Your task to perform on an android device: Search for vegetarian restaurants on Maps Image 0: 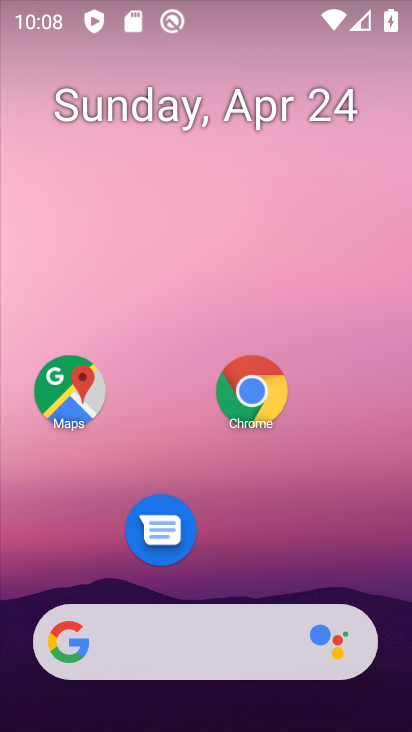
Step 0: click (78, 372)
Your task to perform on an android device: Search for vegetarian restaurants on Maps Image 1: 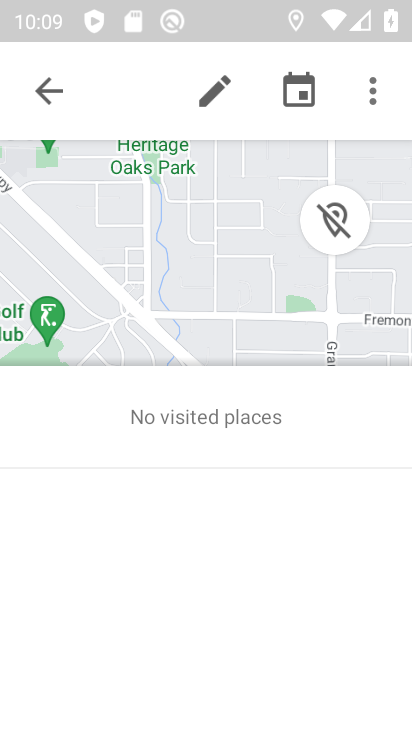
Step 1: click (50, 75)
Your task to perform on an android device: Search for vegetarian restaurants on Maps Image 2: 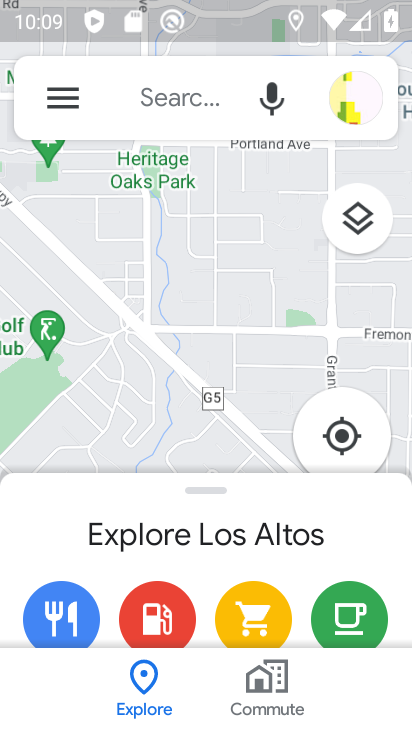
Step 2: click (203, 92)
Your task to perform on an android device: Search for vegetarian restaurants on Maps Image 3: 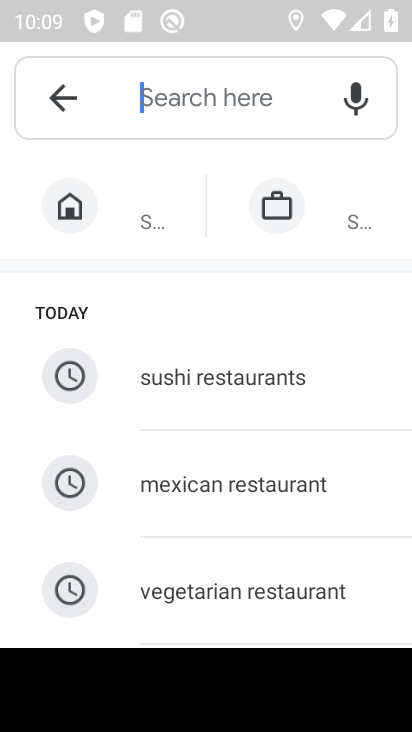
Step 3: click (211, 584)
Your task to perform on an android device: Search for vegetarian restaurants on Maps Image 4: 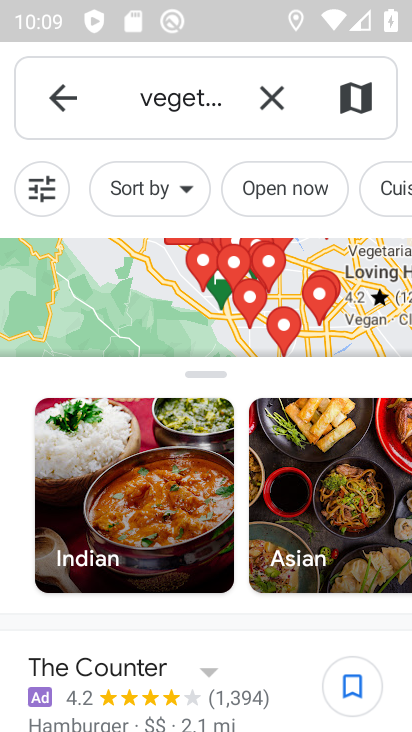
Step 4: task complete